Your task to perform on an android device: turn off notifications settings in the gmail app Image 0: 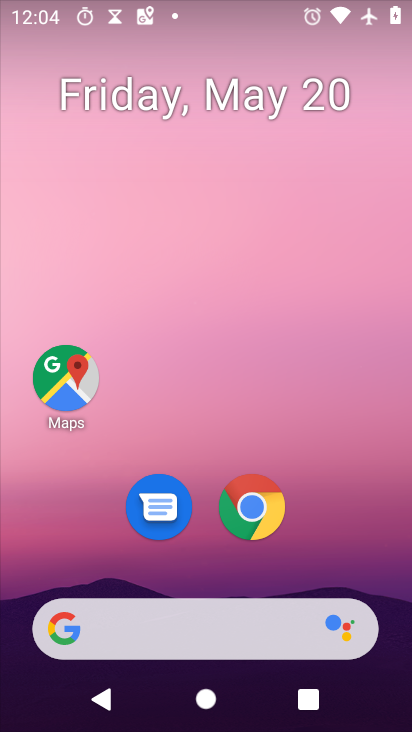
Step 0: drag from (378, 515) to (296, 27)
Your task to perform on an android device: turn off notifications settings in the gmail app Image 1: 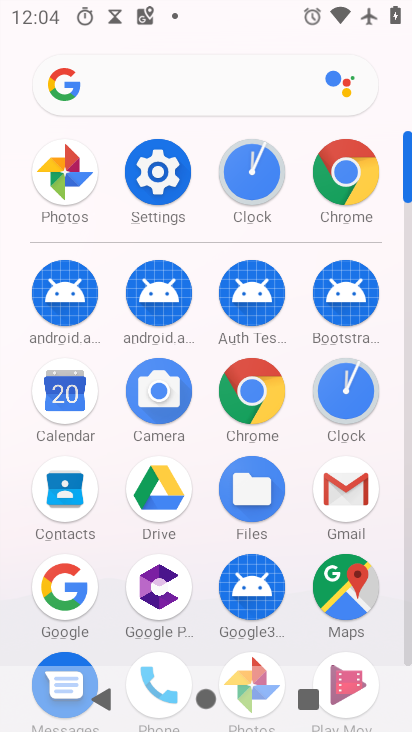
Step 1: drag from (18, 497) to (21, 175)
Your task to perform on an android device: turn off notifications settings in the gmail app Image 2: 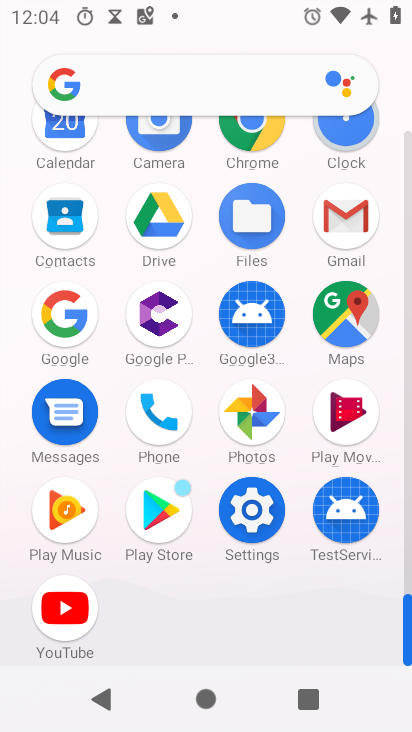
Step 2: click (343, 214)
Your task to perform on an android device: turn off notifications settings in the gmail app Image 3: 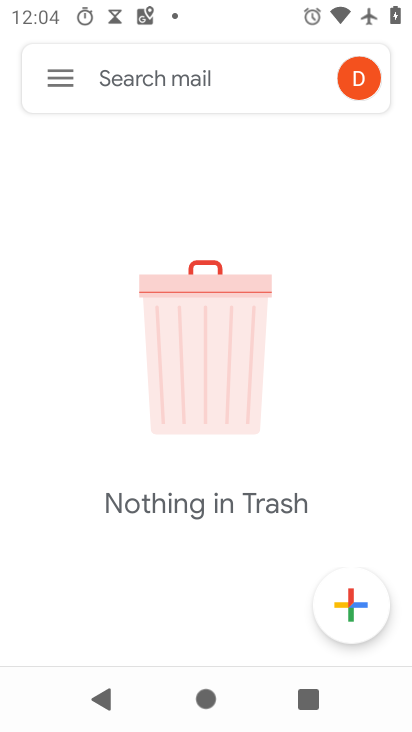
Step 3: click (63, 79)
Your task to perform on an android device: turn off notifications settings in the gmail app Image 4: 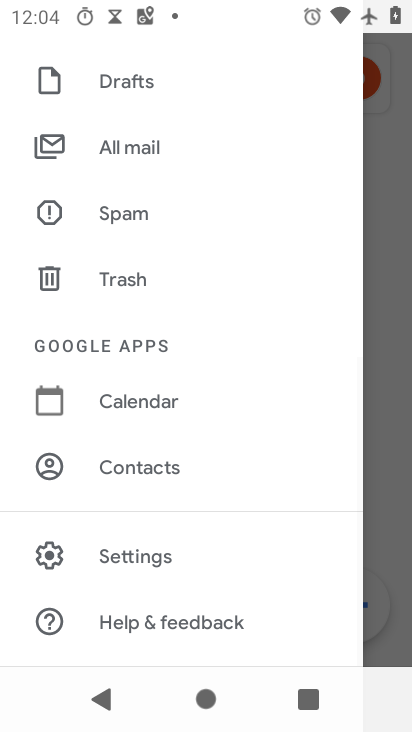
Step 4: click (169, 549)
Your task to perform on an android device: turn off notifications settings in the gmail app Image 5: 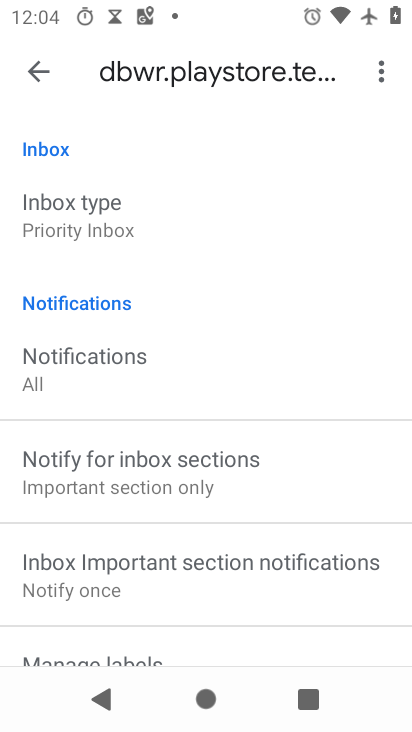
Step 5: drag from (229, 576) to (287, 156)
Your task to perform on an android device: turn off notifications settings in the gmail app Image 6: 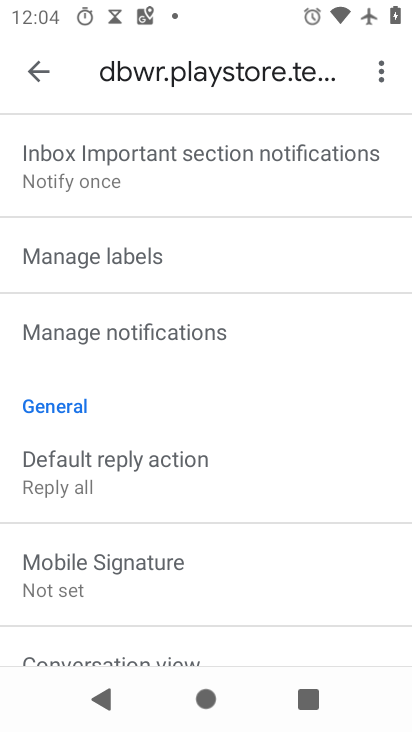
Step 6: drag from (236, 570) to (275, 142)
Your task to perform on an android device: turn off notifications settings in the gmail app Image 7: 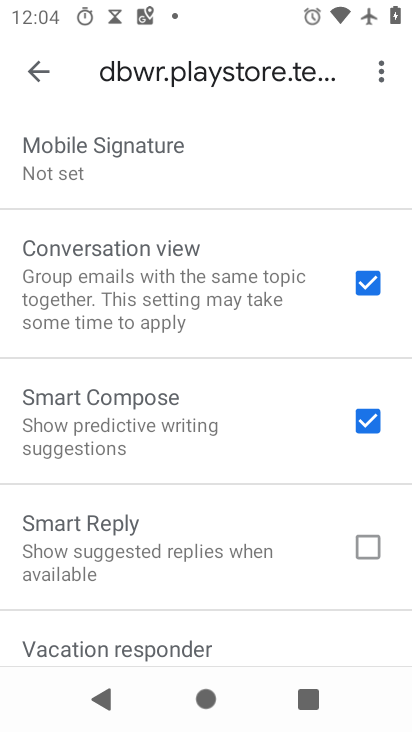
Step 7: drag from (275, 142) to (261, 622)
Your task to perform on an android device: turn off notifications settings in the gmail app Image 8: 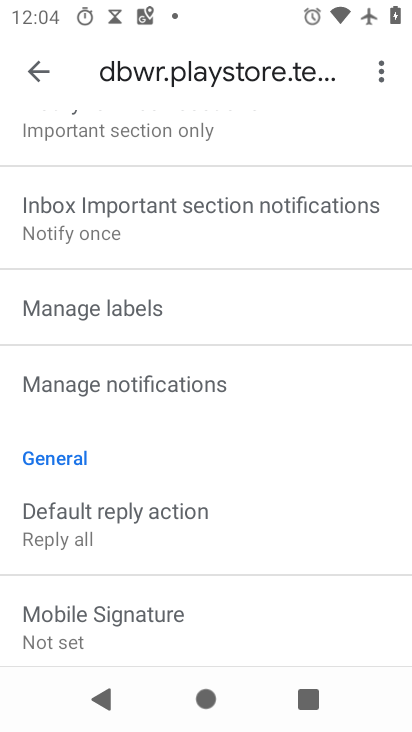
Step 8: click (144, 370)
Your task to perform on an android device: turn off notifications settings in the gmail app Image 9: 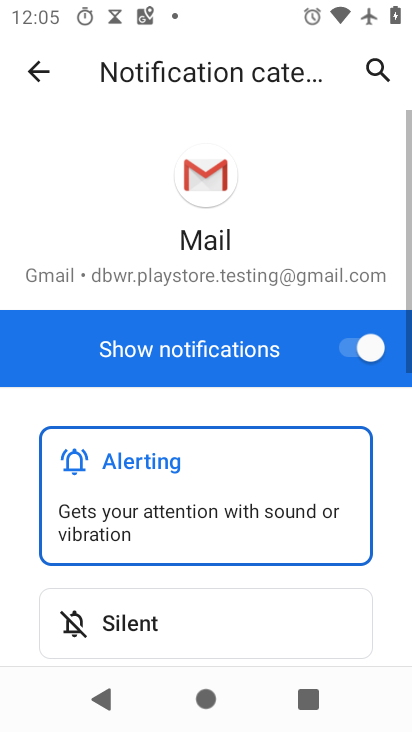
Step 9: click (374, 337)
Your task to perform on an android device: turn off notifications settings in the gmail app Image 10: 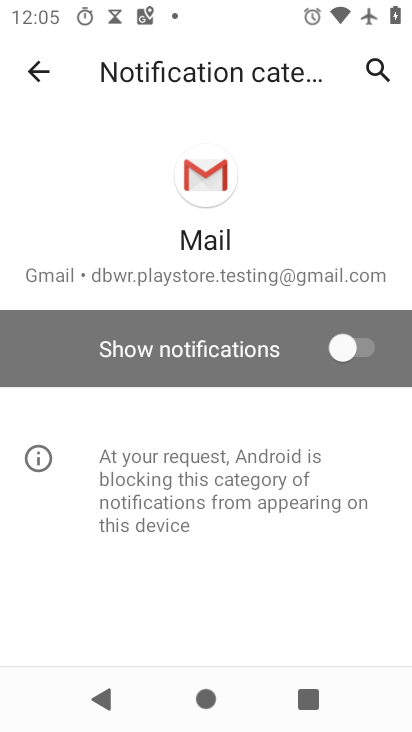
Step 10: task complete